Your task to perform on an android device: find which apps use the phone's location Image 0: 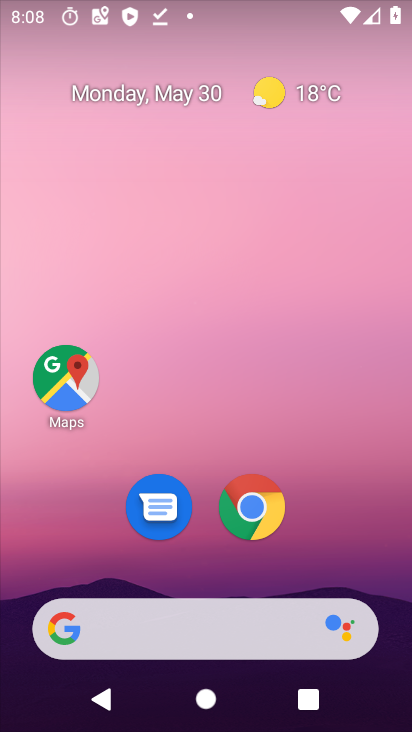
Step 0: drag from (401, 533) to (334, 150)
Your task to perform on an android device: find which apps use the phone's location Image 1: 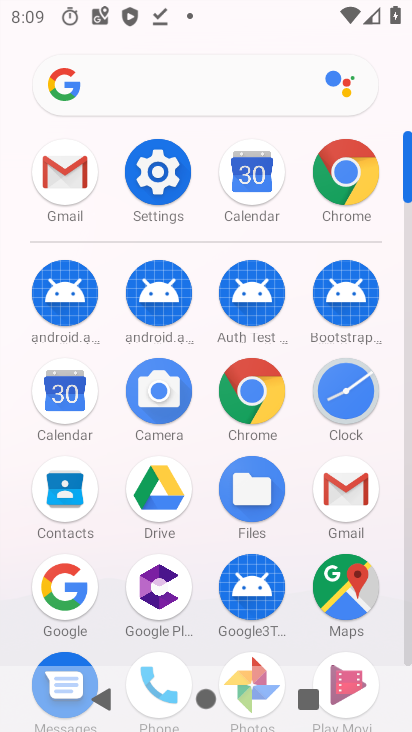
Step 1: drag from (210, 643) to (191, 245)
Your task to perform on an android device: find which apps use the phone's location Image 2: 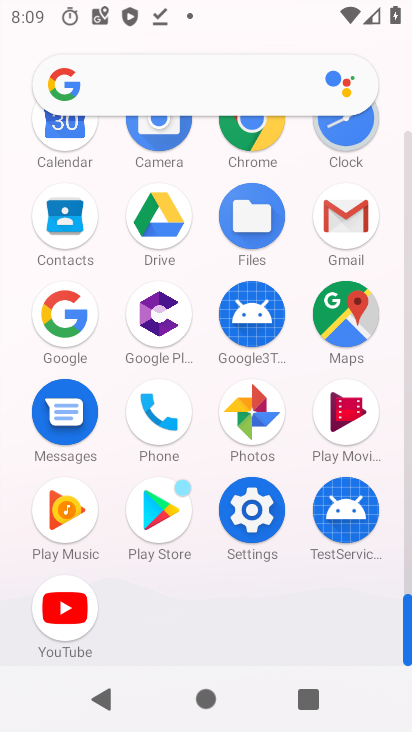
Step 2: click (170, 425)
Your task to perform on an android device: find which apps use the phone's location Image 3: 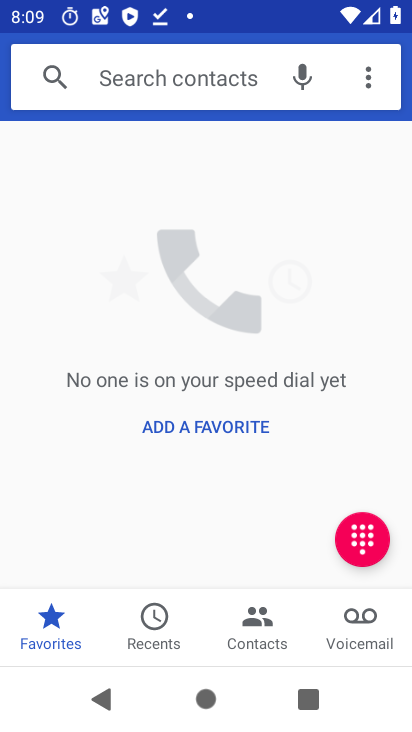
Step 3: click (379, 75)
Your task to perform on an android device: find which apps use the phone's location Image 4: 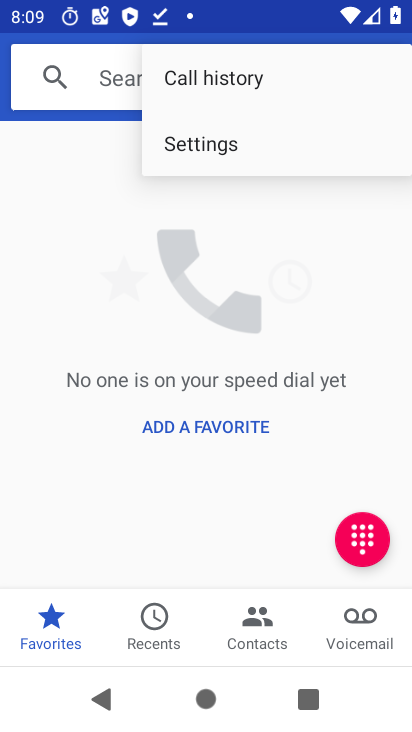
Step 4: click (213, 145)
Your task to perform on an android device: find which apps use the phone's location Image 5: 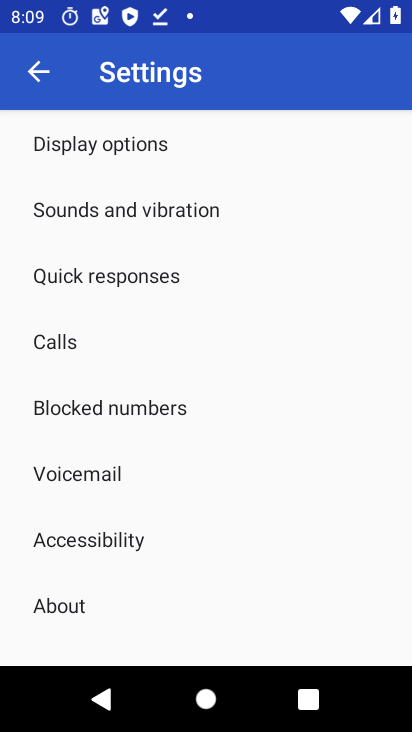
Step 5: task complete